Your task to perform on an android device: Go to sound settings Image 0: 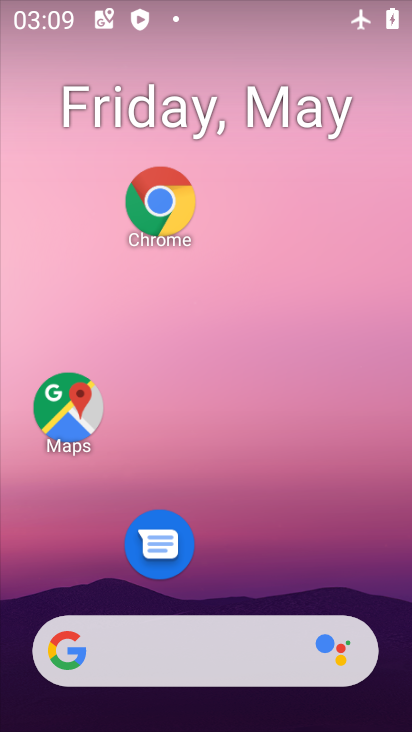
Step 0: drag from (264, 522) to (282, 172)
Your task to perform on an android device: Go to sound settings Image 1: 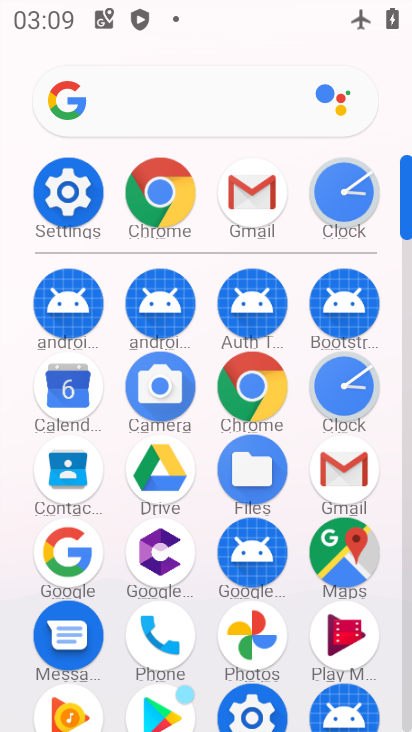
Step 1: click (83, 224)
Your task to perform on an android device: Go to sound settings Image 2: 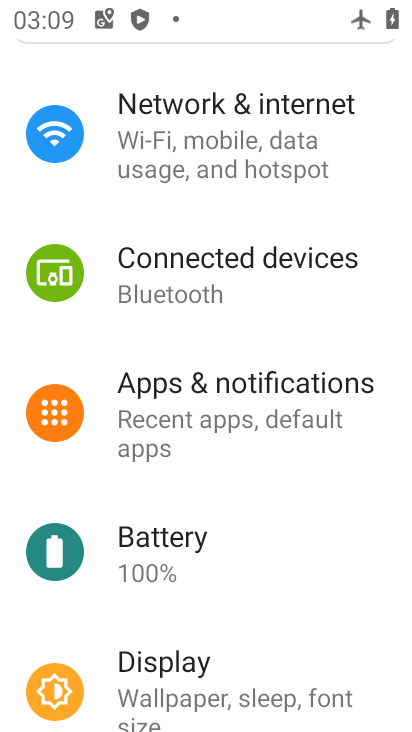
Step 2: drag from (241, 517) to (278, 223)
Your task to perform on an android device: Go to sound settings Image 3: 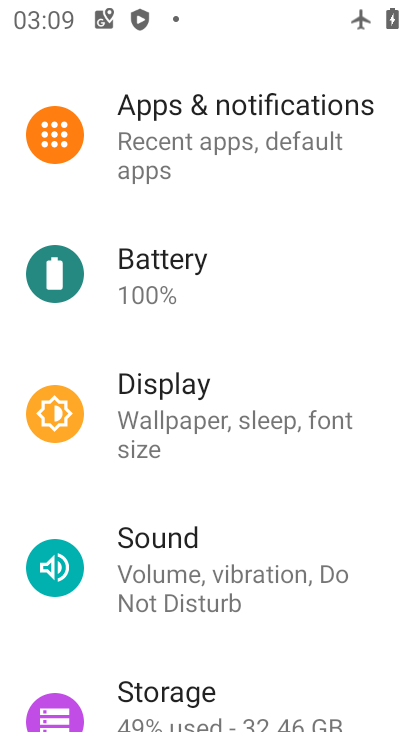
Step 3: click (206, 559)
Your task to perform on an android device: Go to sound settings Image 4: 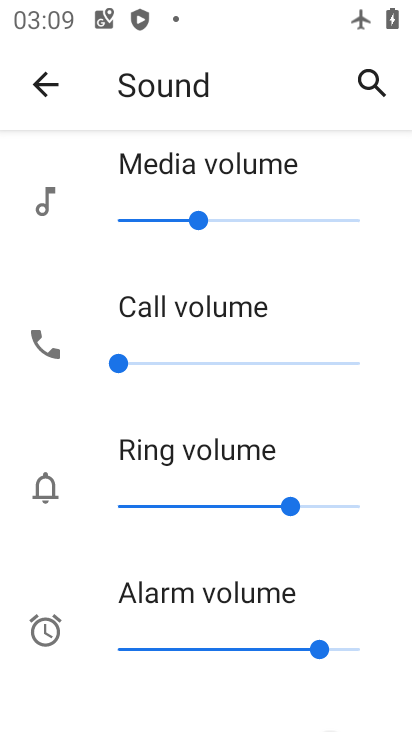
Step 4: task complete